Your task to perform on an android device: check out phone information Image 0: 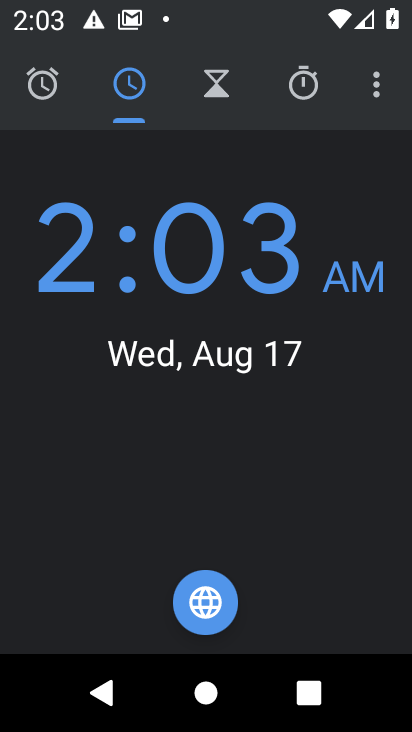
Step 0: task complete